Your task to perform on an android device: Go to CNN.com Image 0: 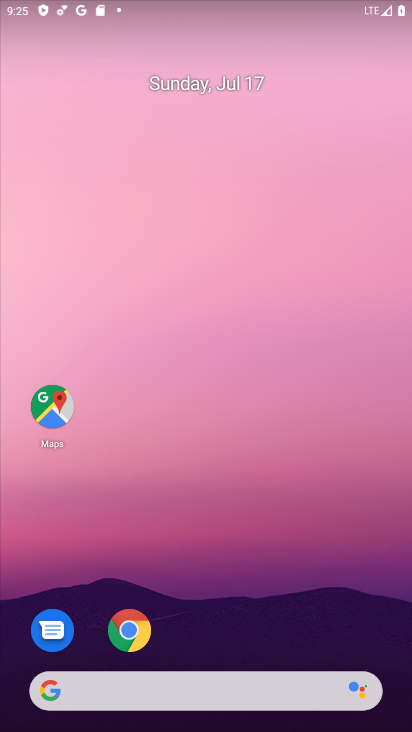
Step 0: drag from (234, 632) to (234, 168)
Your task to perform on an android device: Go to CNN.com Image 1: 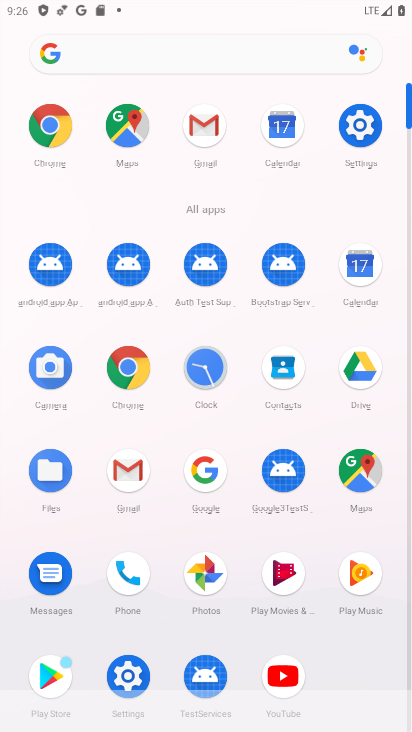
Step 1: click (128, 363)
Your task to perform on an android device: Go to CNN.com Image 2: 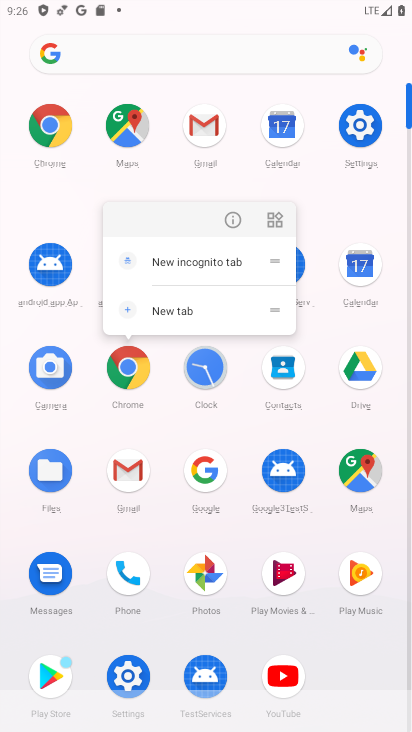
Step 2: click (121, 366)
Your task to perform on an android device: Go to CNN.com Image 3: 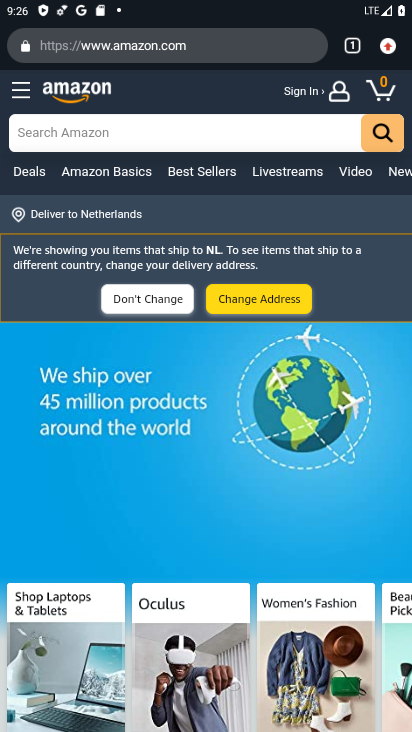
Step 3: click (344, 33)
Your task to perform on an android device: Go to CNN.com Image 4: 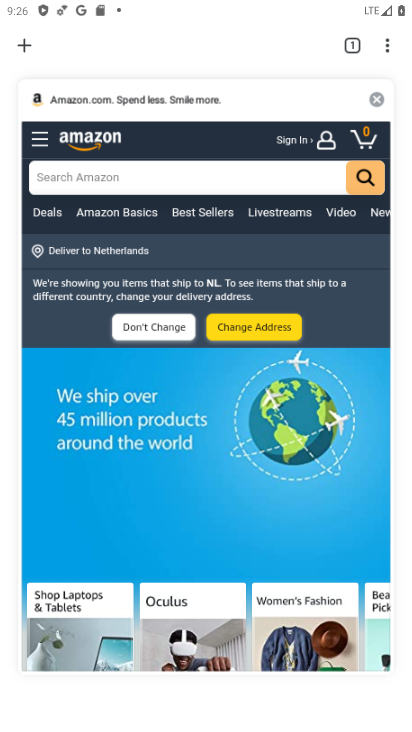
Step 4: click (25, 49)
Your task to perform on an android device: Go to CNN.com Image 5: 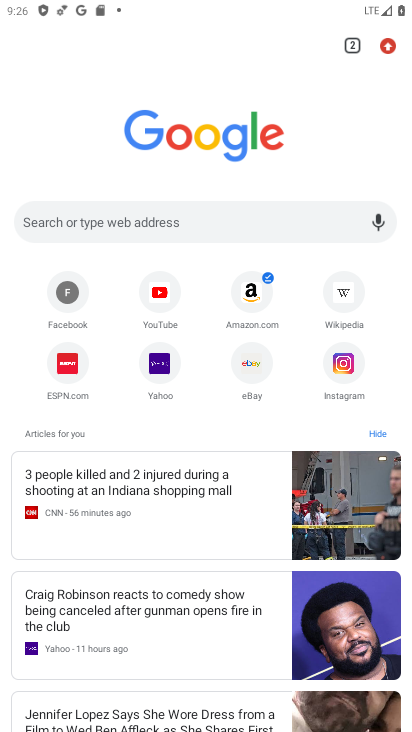
Step 5: click (91, 213)
Your task to perform on an android device: Go to CNN.com Image 6: 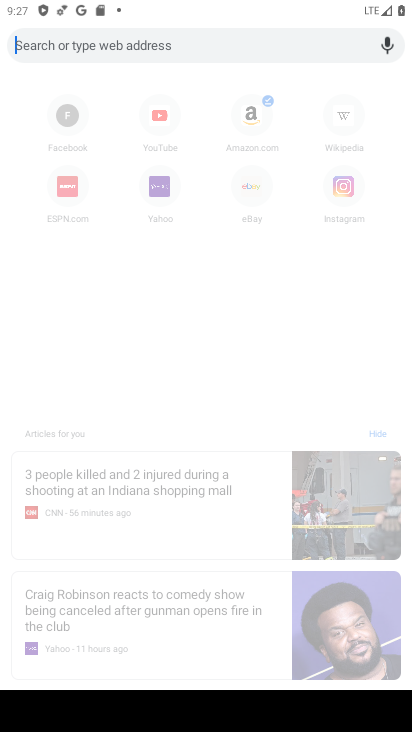
Step 6: type "cnn.com"
Your task to perform on an android device: Go to CNN.com Image 7: 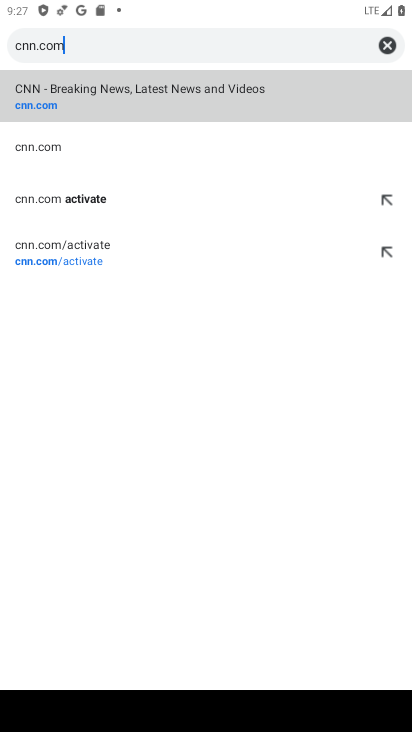
Step 7: click (90, 99)
Your task to perform on an android device: Go to CNN.com Image 8: 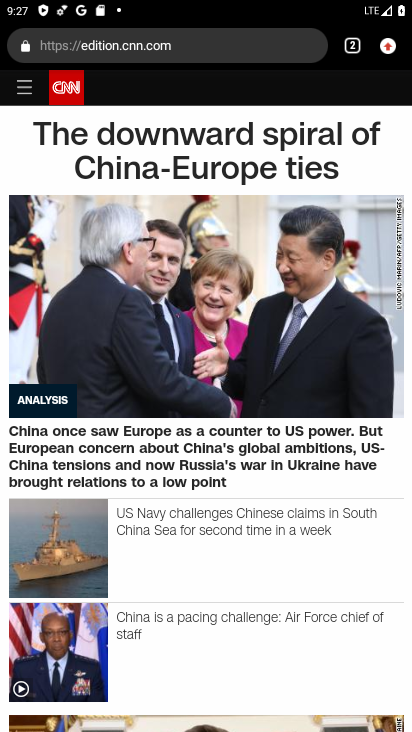
Step 8: drag from (238, 582) to (251, 257)
Your task to perform on an android device: Go to CNN.com Image 9: 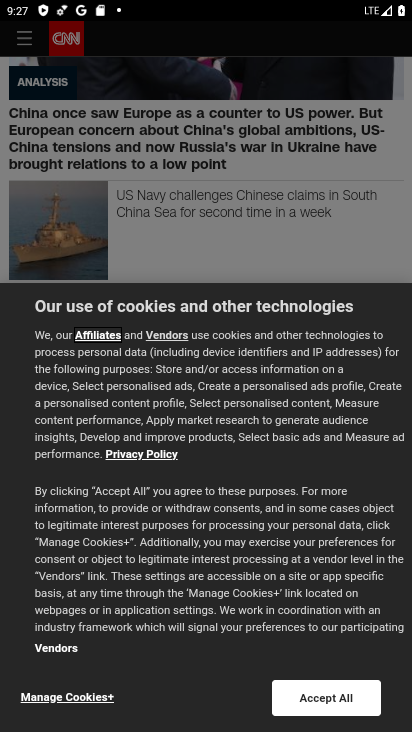
Step 9: click (338, 695)
Your task to perform on an android device: Go to CNN.com Image 10: 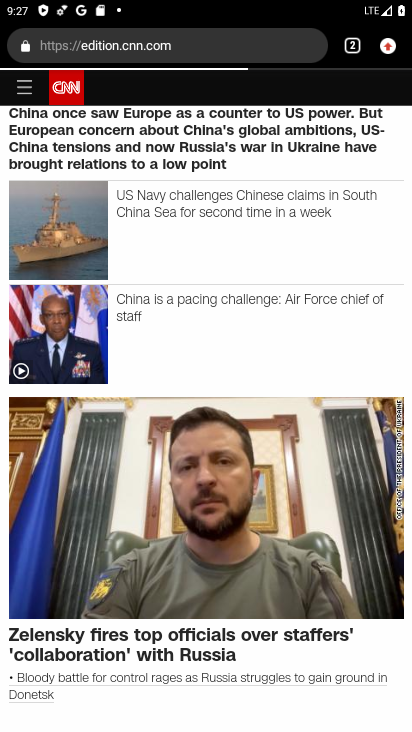
Step 10: task complete